Your task to perform on an android device: Open Chrome and go to settings Image 0: 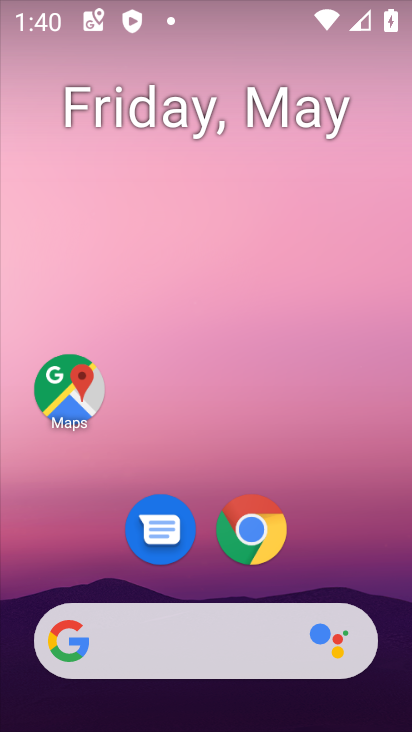
Step 0: click (273, 528)
Your task to perform on an android device: Open Chrome and go to settings Image 1: 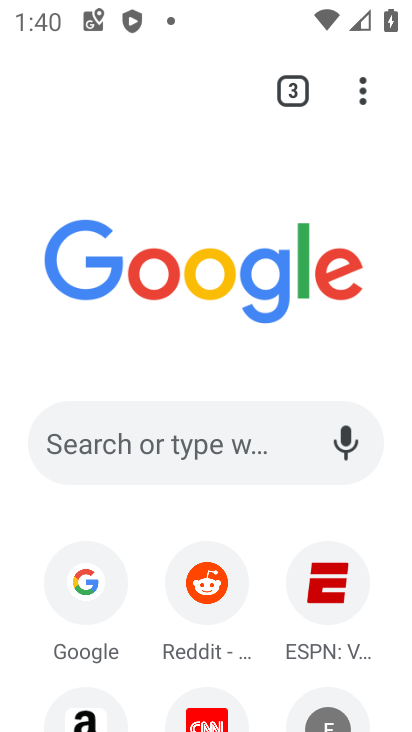
Step 1: click (365, 83)
Your task to perform on an android device: Open Chrome and go to settings Image 2: 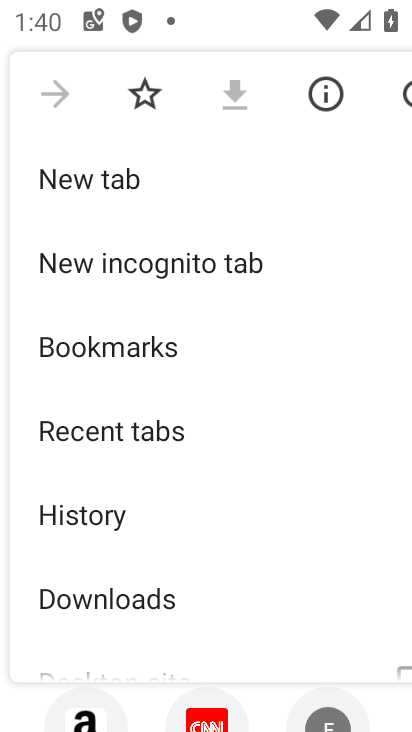
Step 2: drag from (138, 673) to (116, 529)
Your task to perform on an android device: Open Chrome and go to settings Image 3: 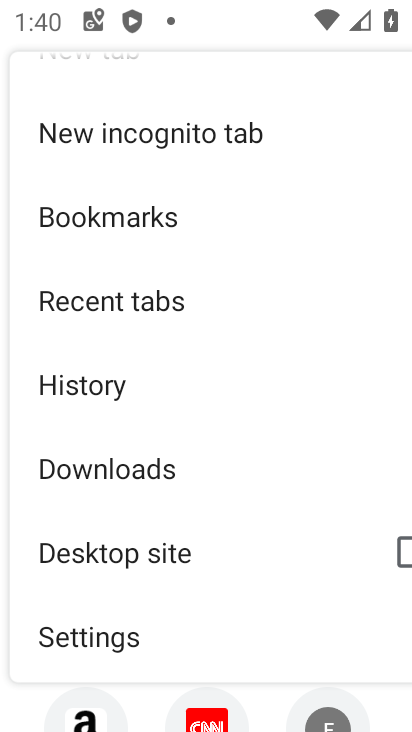
Step 3: click (139, 637)
Your task to perform on an android device: Open Chrome and go to settings Image 4: 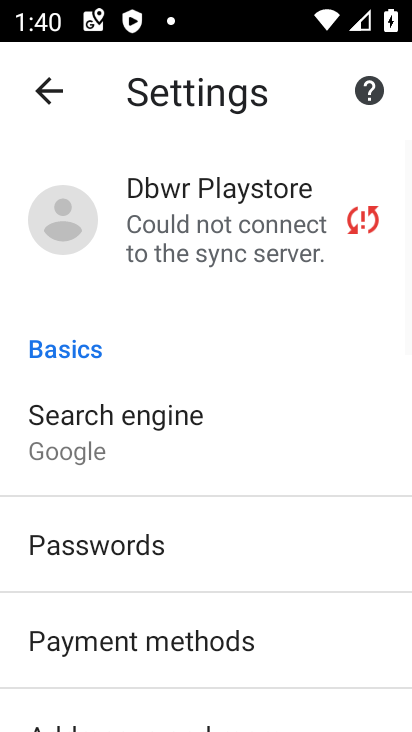
Step 4: task complete